Your task to perform on an android device: Open Google Chrome and click the shortcut for Amazon.com Image 0: 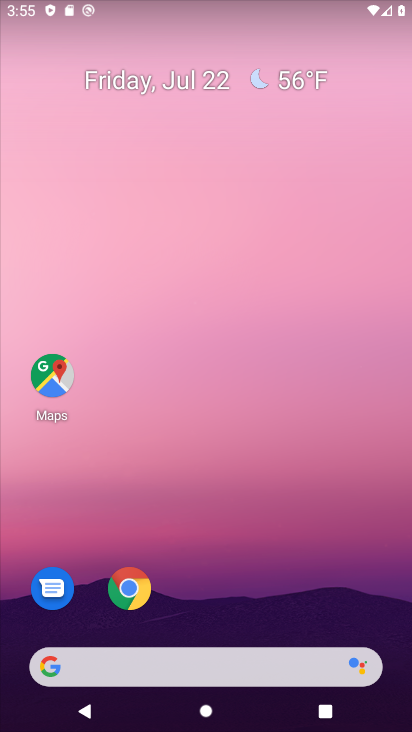
Step 0: click (132, 609)
Your task to perform on an android device: Open Google Chrome and click the shortcut for Amazon.com Image 1: 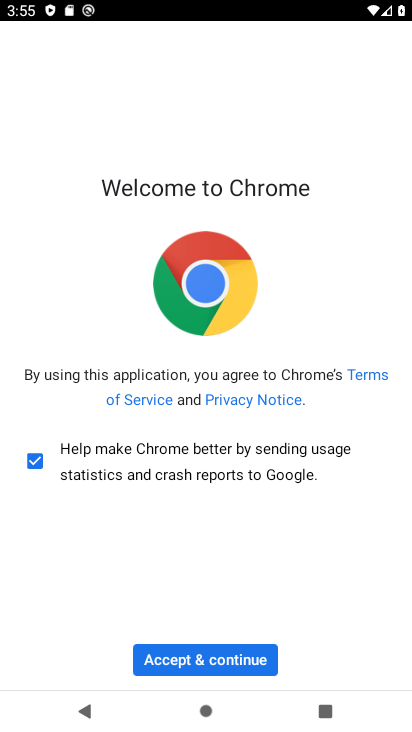
Step 1: click (223, 639)
Your task to perform on an android device: Open Google Chrome and click the shortcut for Amazon.com Image 2: 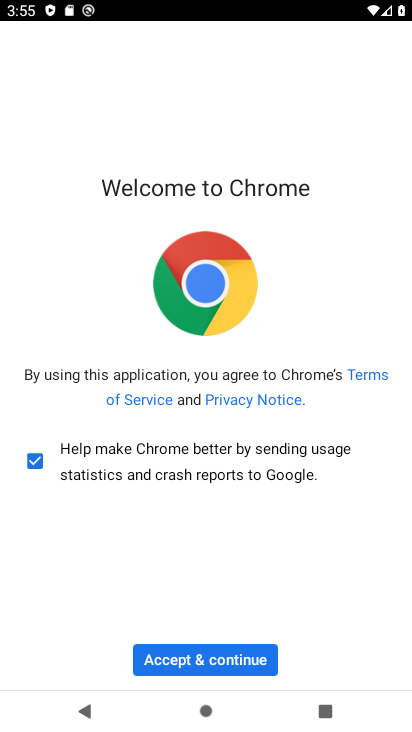
Step 2: click (208, 665)
Your task to perform on an android device: Open Google Chrome and click the shortcut for Amazon.com Image 3: 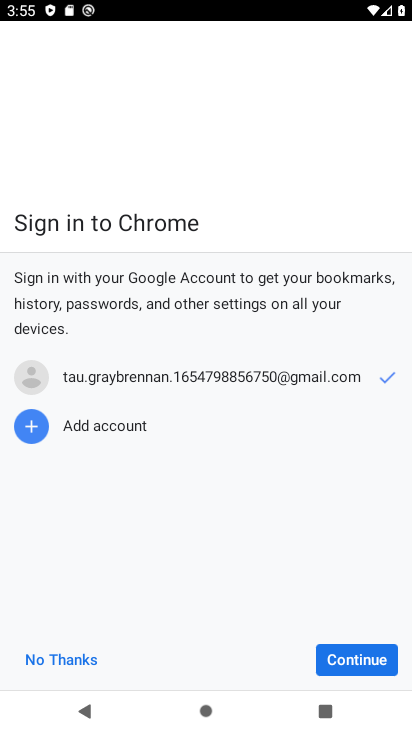
Step 3: click (358, 646)
Your task to perform on an android device: Open Google Chrome and click the shortcut for Amazon.com Image 4: 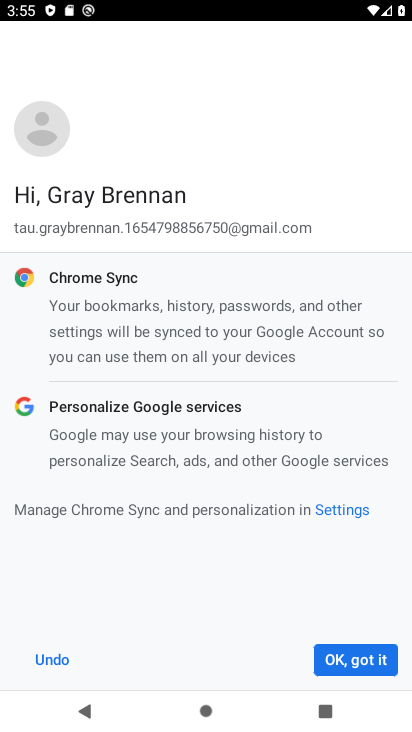
Step 4: click (351, 646)
Your task to perform on an android device: Open Google Chrome and click the shortcut for Amazon.com Image 5: 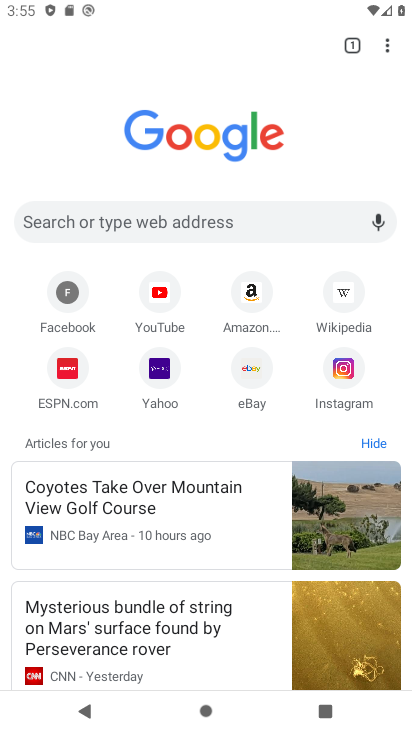
Step 5: click (232, 289)
Your task to perform on an android device: Open Google Chrome and click the shortcut for Amazon.com Image 6: 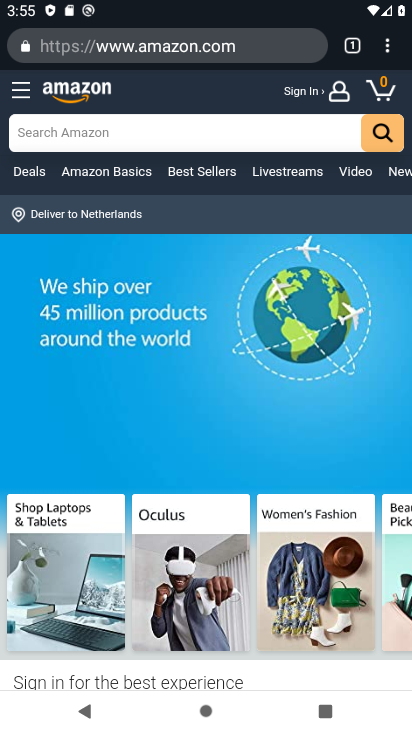
Step 6: task complete